Your task to perform on an android device: turn off location history Image 0: 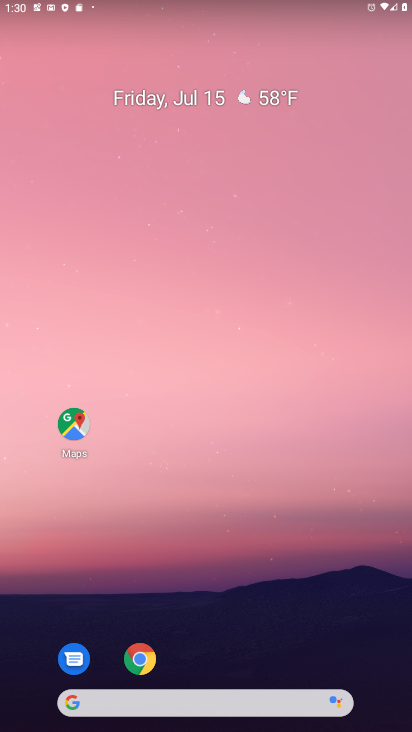
Step 0: drag from (228, 641) to (230, 112)
Your task to perform on an android device: turn off location history Image 1: 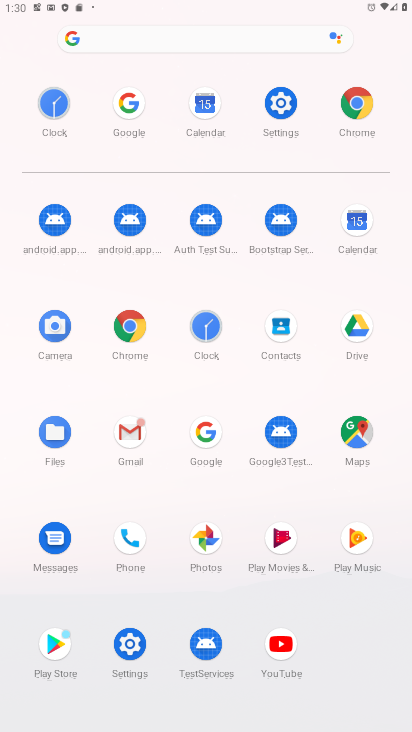
Step 1: click (280, 109)
Your task to perform on an android device: turn off location history Image 2: 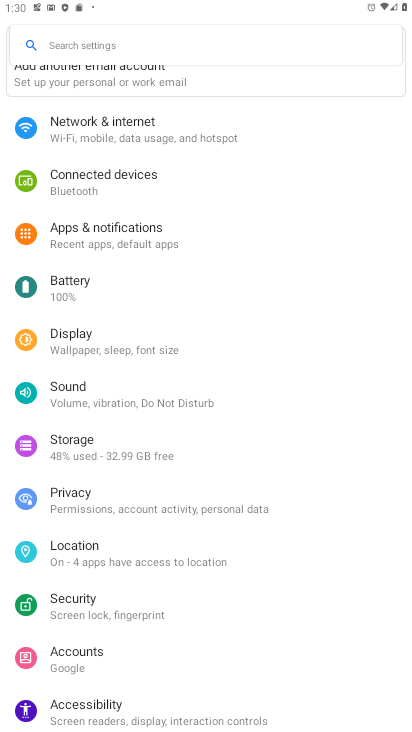
Step 2: click (94, 546)
Your task to perform on an android device: turn off location history Image 3: 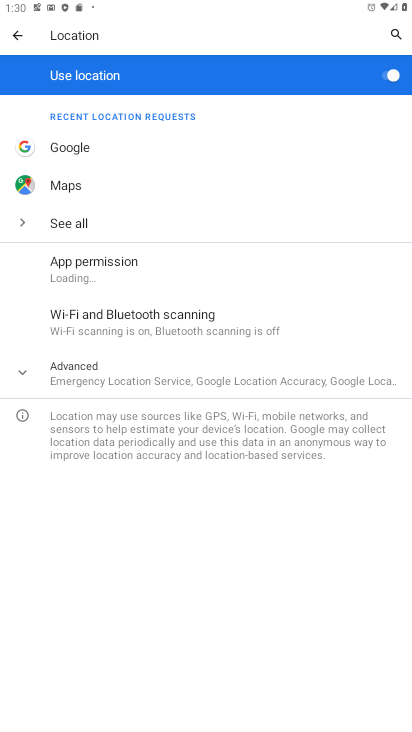
Step 3: click (77, 370)
Your task to perform on an android device: turn off location history Image 4: 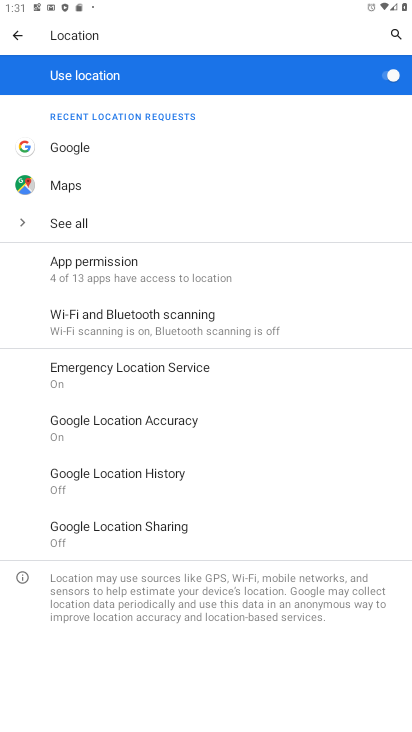
Step 4: click (100, 473)
Your task to perform on an android device: turn off location history Image 5: 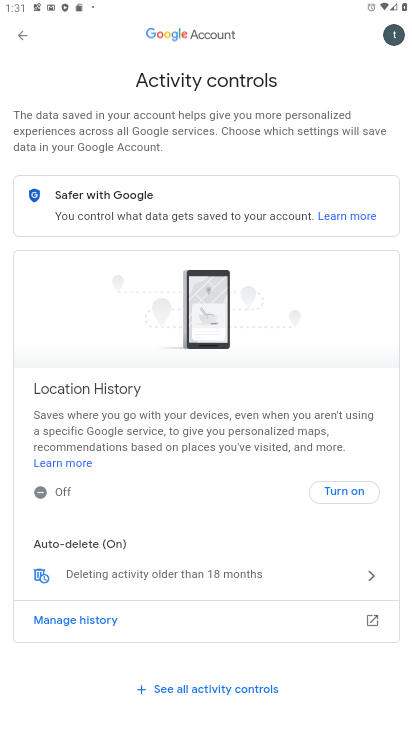
Step 5: task complete